Your task to perform on an android device: turn off wifi Image 0: 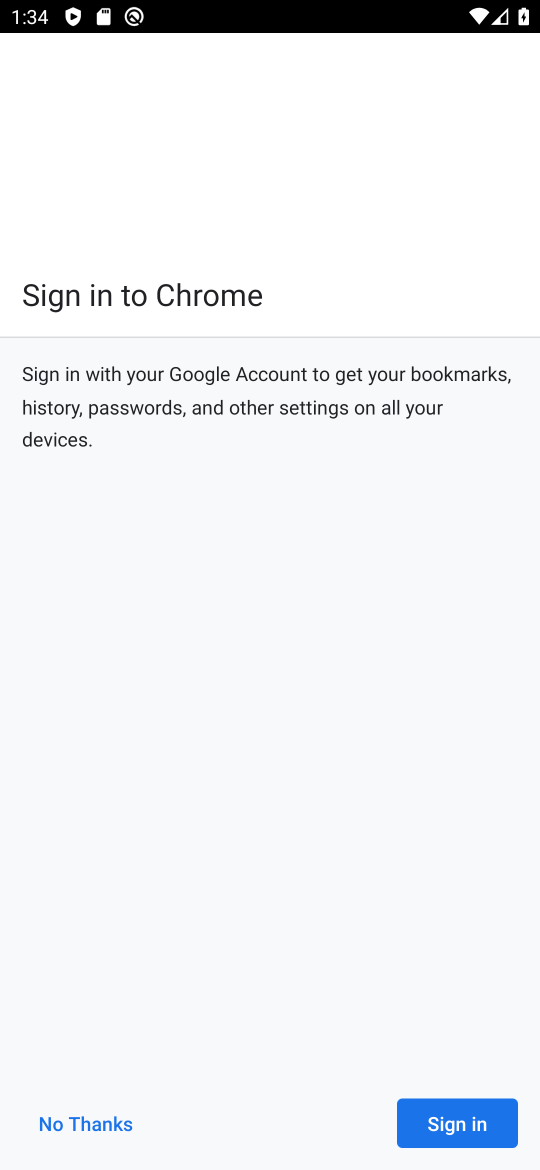
Step 0: press home button
Your task to perform on an android device: turn off wifi Image 1: 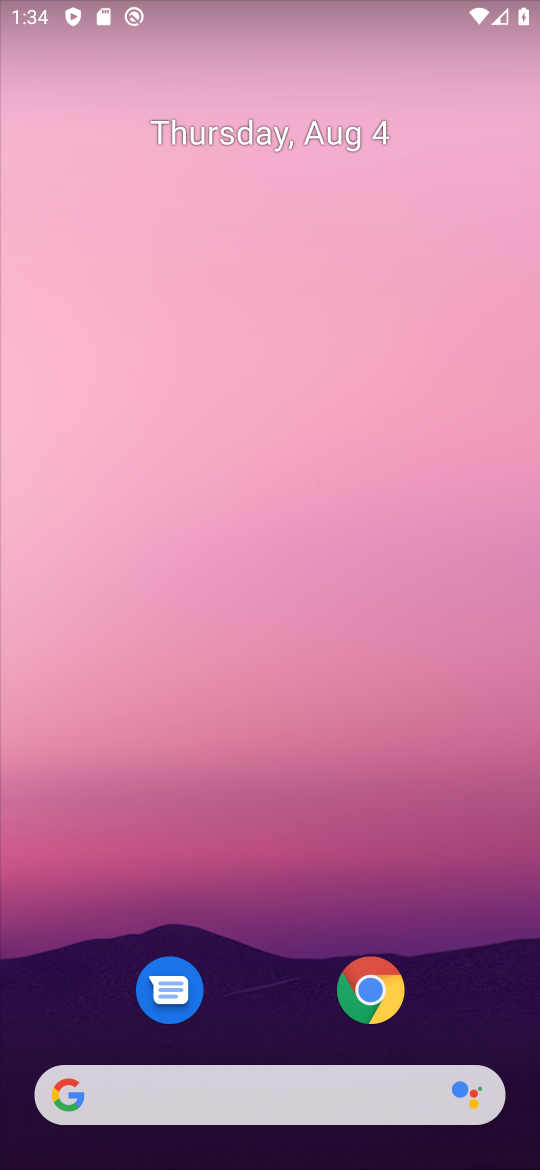
Step 1: drag from (307, 1035) to (291, 51)
Your task to perform on an android device: turn off wifi Image 2: 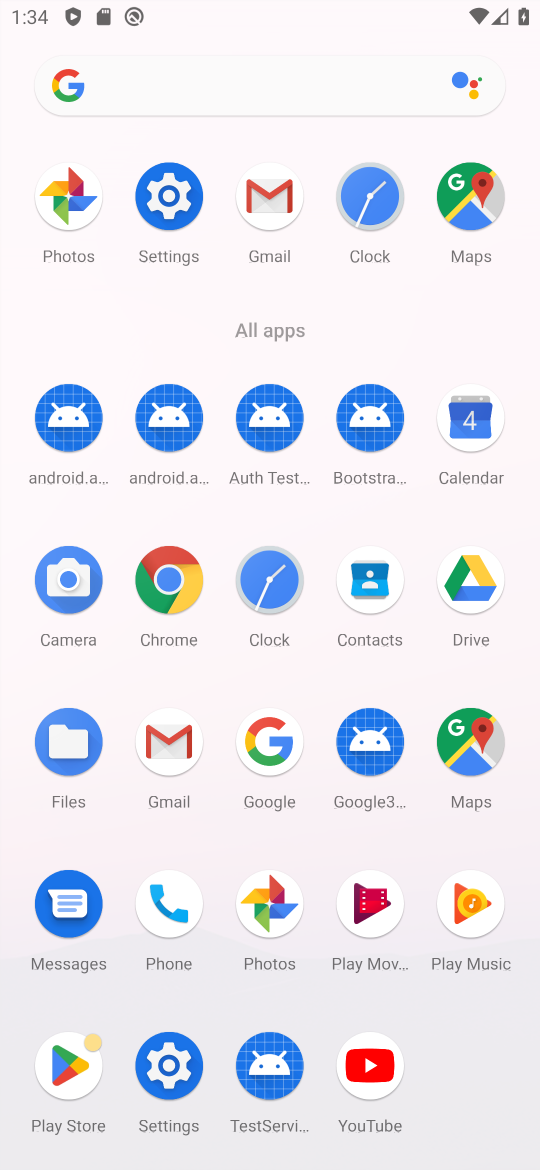
Step 2: click (185, 232)
Your task to perform on an android device: turn off wifi Image 3: 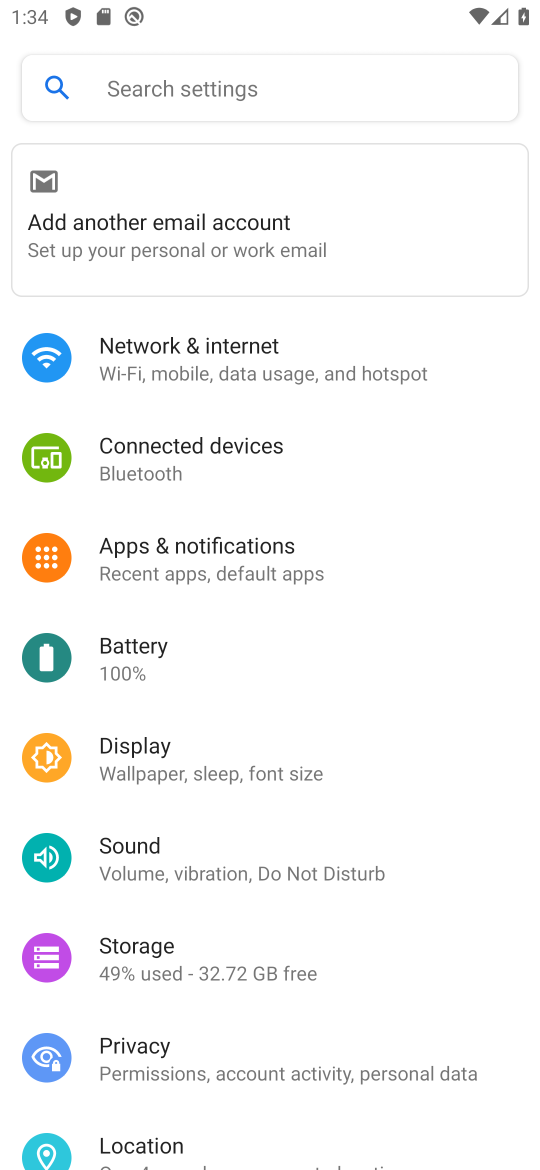
Step 3: click (238, 344)
Your task to perform on an android device: turn off wifi Image 4: 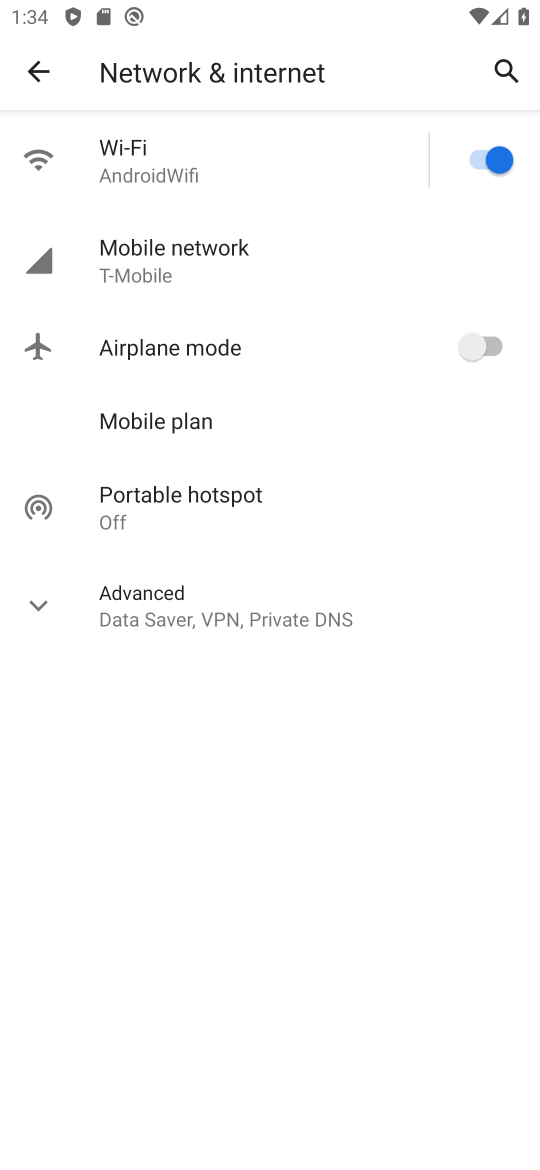
Step 4: click (511, 142)
Your task to perform on an android device: turn off wifi Image 5: 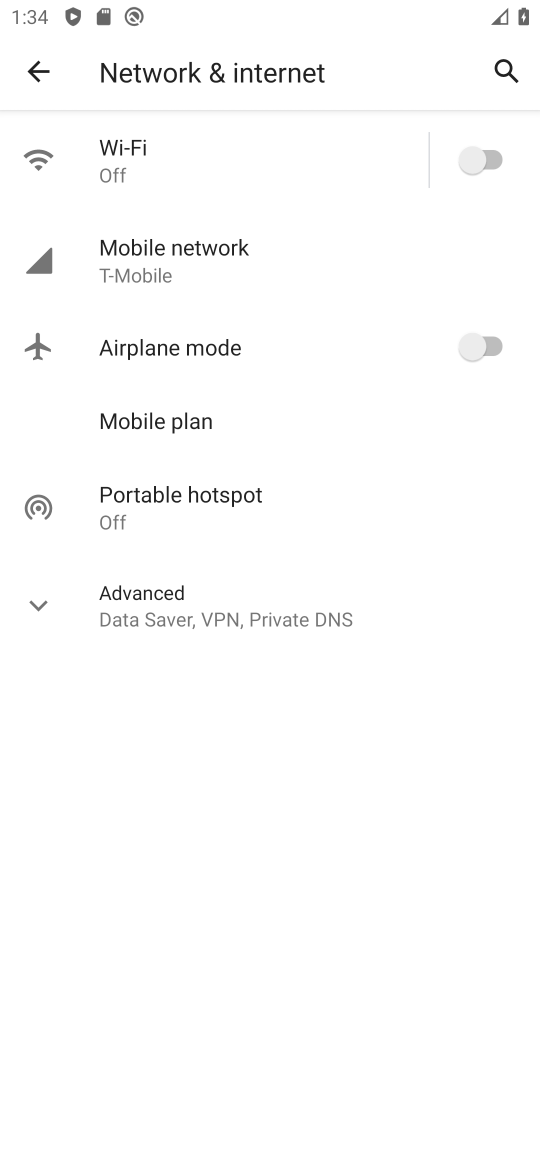
Step 5: task complete